Your task to perform on an android device: Open Google Maps and go to "Timeline" Image 0: 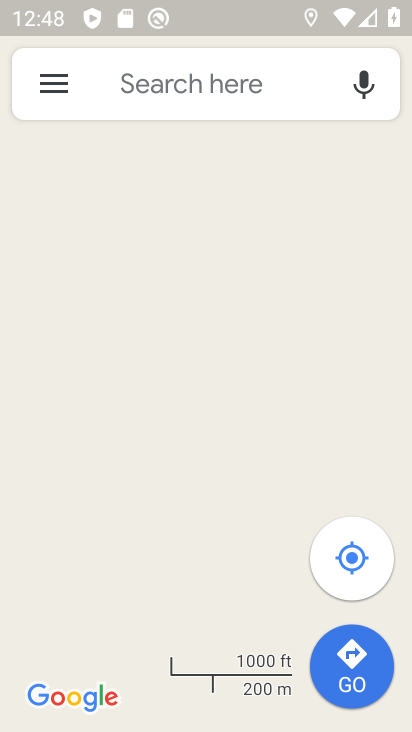
Step 0: click (68, 80)
Your task to perform on an android device: Open Google Maps and go to "Timeline" Image 1: 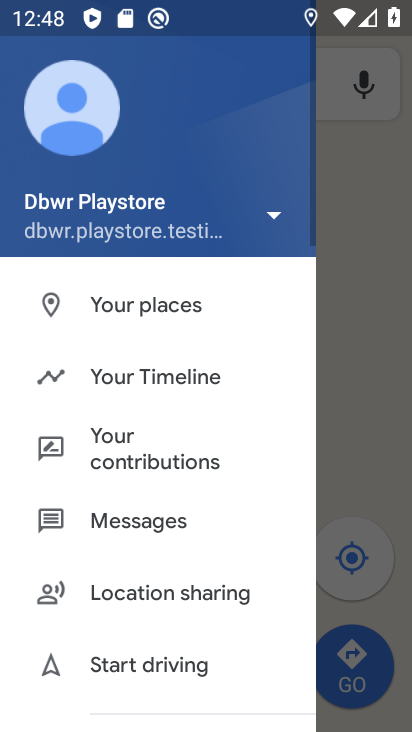
Step 1: click (209, 377)
Your task to perform on an android device: Open Google Maps and go to "Timeline" Image 2: 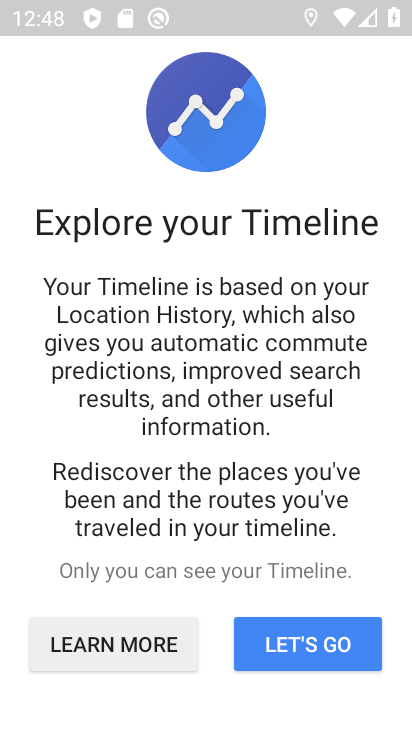
Step 2: click (322, 649)
Your task to perform on an android device: Open Google Maps and go to "Timeline" Image 3: 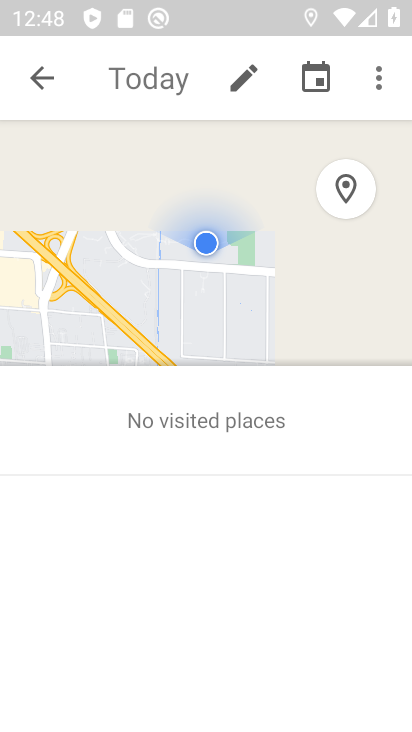
Step 3: task complete